Your task to perform on an android device: manage bookmarks in the chrome app Image 0: 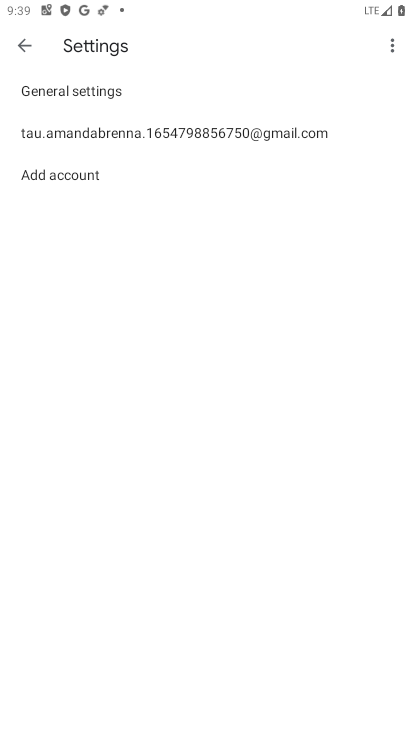
Step 0: press home button
Your task to perform on an android device: manage bookmarks in the chrome app Image 1: 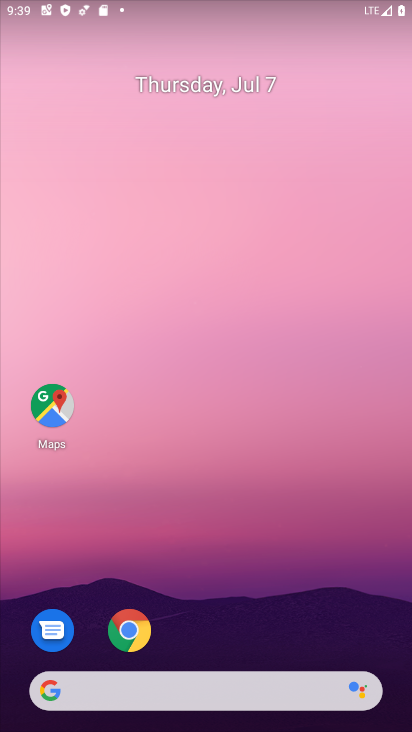
Step 1: drag from (244, 630) to (244, 205)
Your task to perform on an android device: manage bookmarks in the chrome app Image 2: 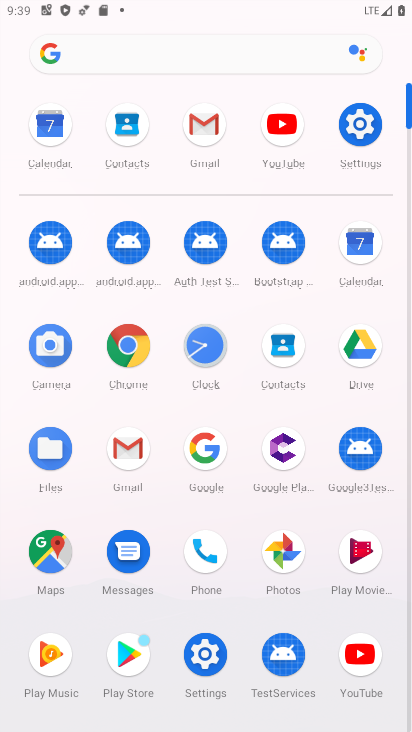
Step 2: click (116, 338)
Your task to perform on an android device: manage bookmarks in the chrome app Image 3: 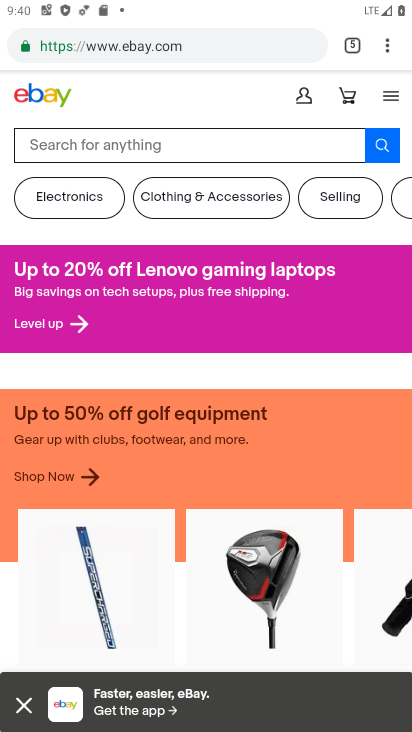
Step 3: click (387, 48)
Your task to perform on an android device: manage bookmarks in the chrome app Image 4: 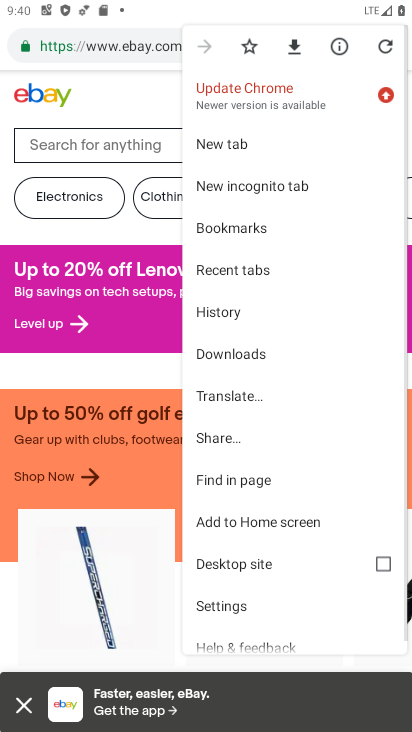
Step 4: click (280, 222)
Your task to perform on an android device: manage bookmarks in the chrome app Image 5: 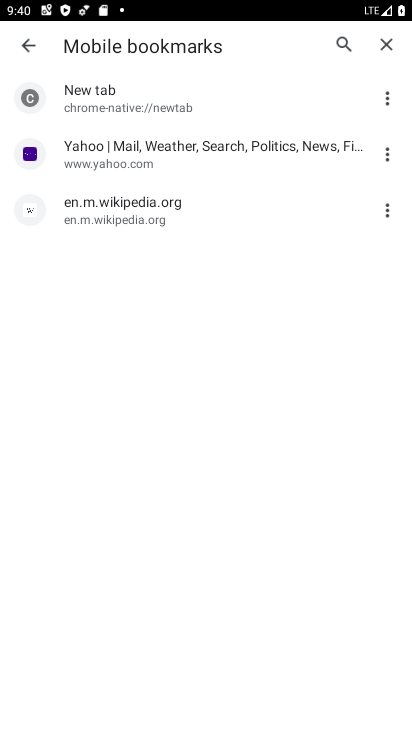
Step 5: click (380, 209)
Your task to perform on an android device: manage bookmarks in the chrome app Image 6: 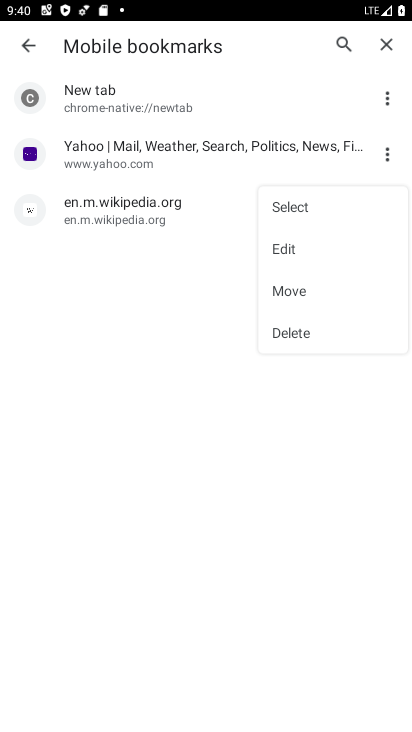
Step 6: click (297, 297)
Your task to perform on an android device: manage bookmarks in the chrome app Image 7: 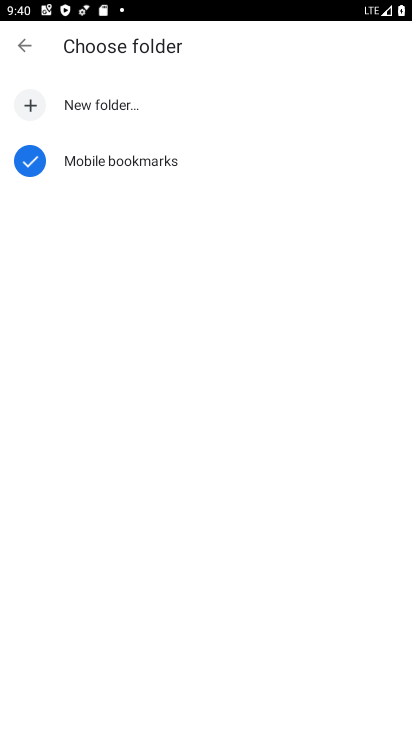
Step 7: click (27, 49)
Your task to perform on an android device: manage bookmarks in the chrome app Image 8: 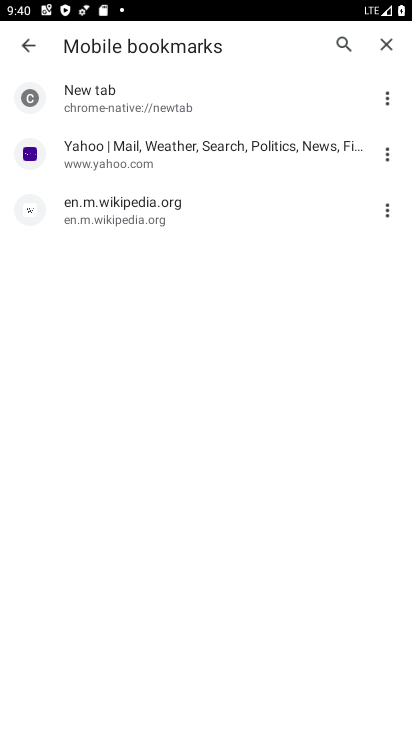
Step 8: click (383, 204)
Your task to perform on an android device: manage bookmarks in the chrome app Image 9: 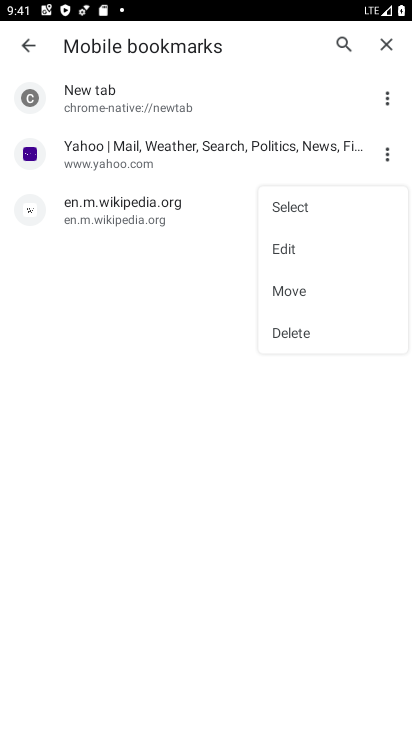
Step 9: click (302, 326)
Your task to perform on an android device: manage bookmarks in the chrome app Image 10: 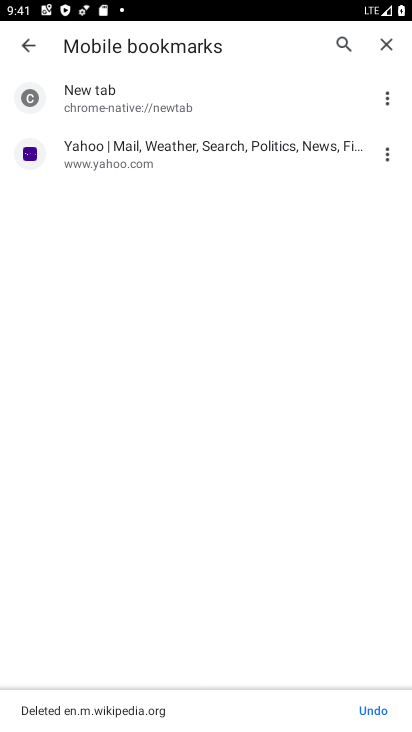
Step 10: task complete